Your task to perform on an android device: check data usage Image 0: 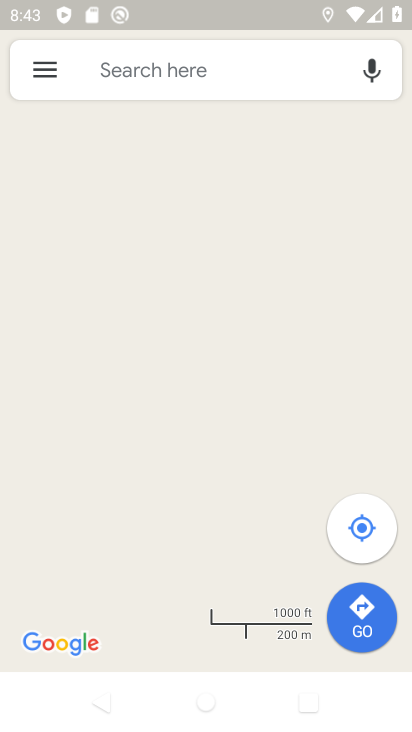
Step 0: press back button
Your task to perform on an android device: check data usage Image 1: 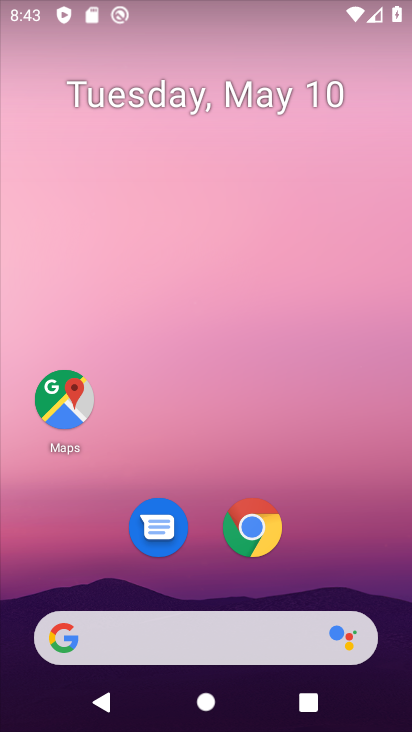
Step 1: drag from (169, 600) to (287, 82)
Your task to perform on an android device: check data usage Image 2: 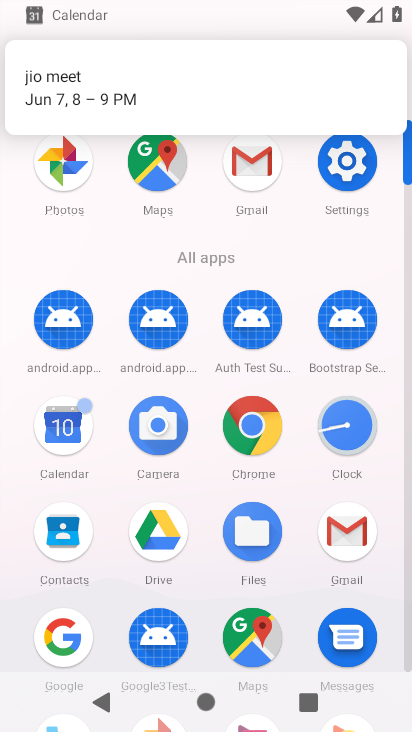
Step 2: drag from (212, 629) to (292, 291)
Your task to perform on an android device: check data usage Image 3: 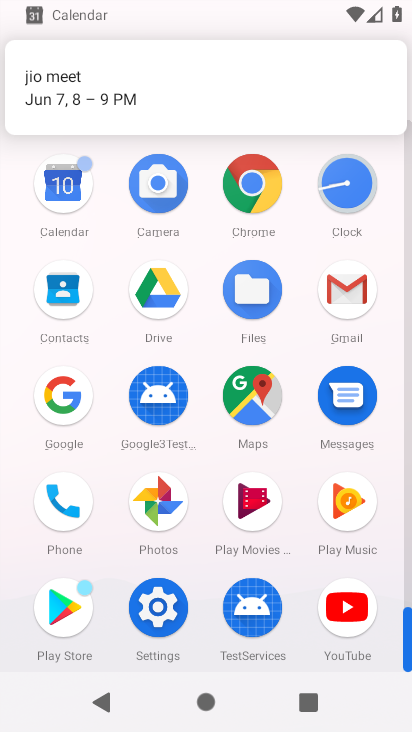
Step 3: click (161, 617)
Your task to perform on an android device: check data usage Image 4: 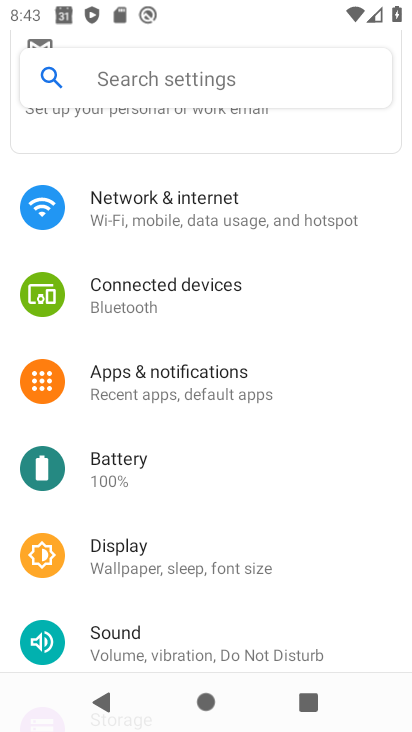
Step 4: click (171, 227)
Your task to perform on an android device: check data usage Image 5: 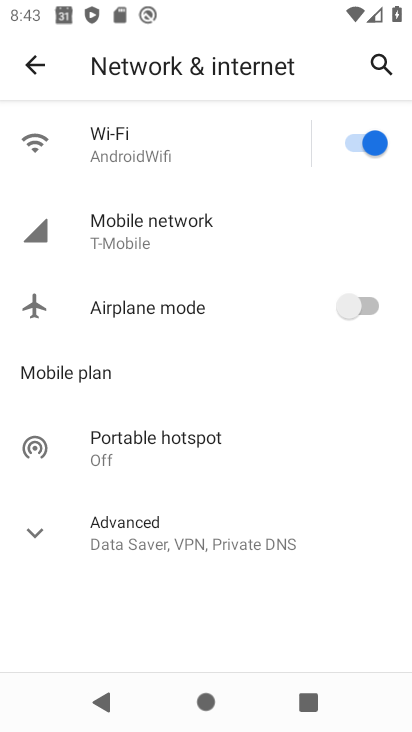
Step 5: click (208, 222)
Your task to perform on an android device: check data usage Image 6: 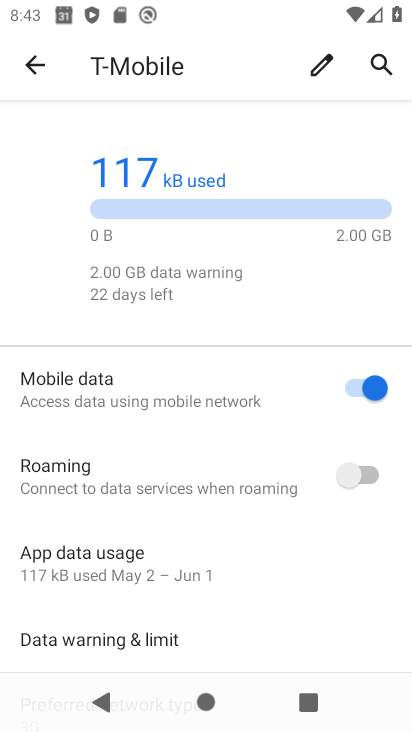
Step 6: click (175, 556)
Your task to perform on an android device: check data usage Image 7: 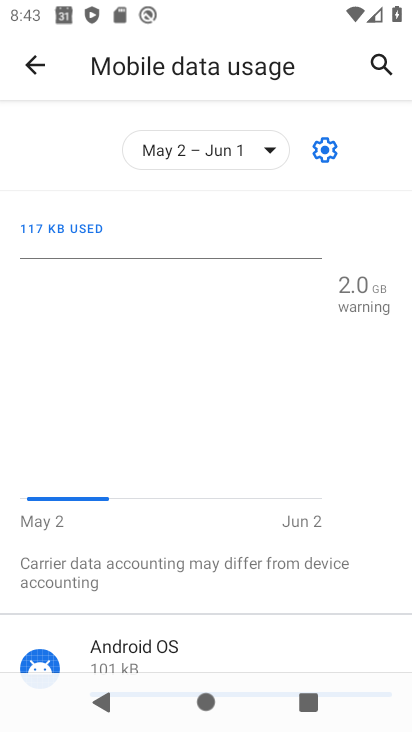
Step 7: task complete